Your task to perform on an android device: Open the web browser Image 0: 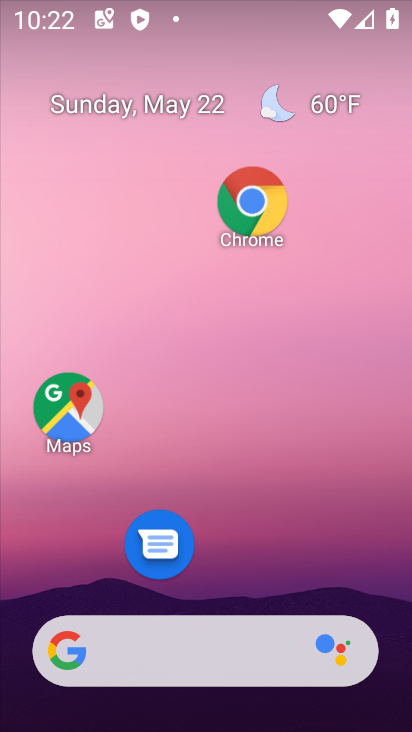
Step 0: drag from (245, 524) to (236, 23)
Your task to perform on an android device: Open the web browser Image 1: 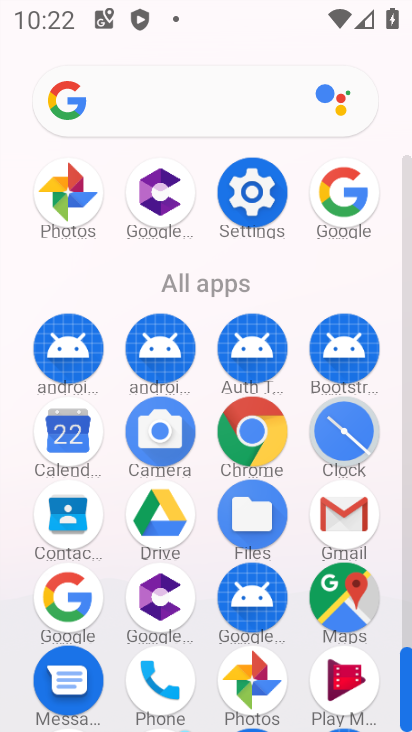
Step 1: click (349, 190)
Your task to perform on an android device: Open the web browser Image 2: 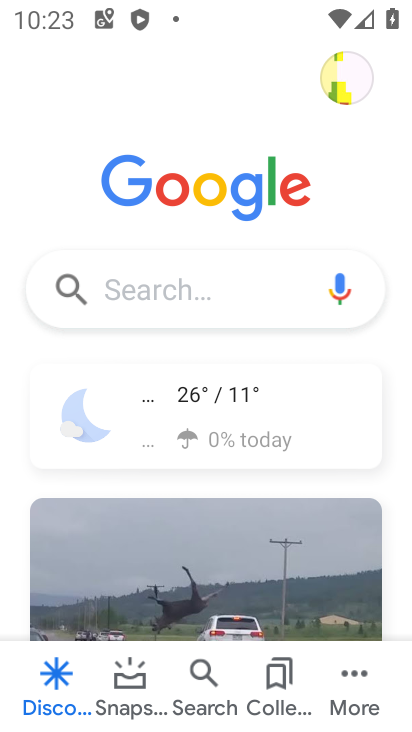
Step 2: task complete